Your task to perform on an android device: toggle notifications settings in the gmail app Image 0: 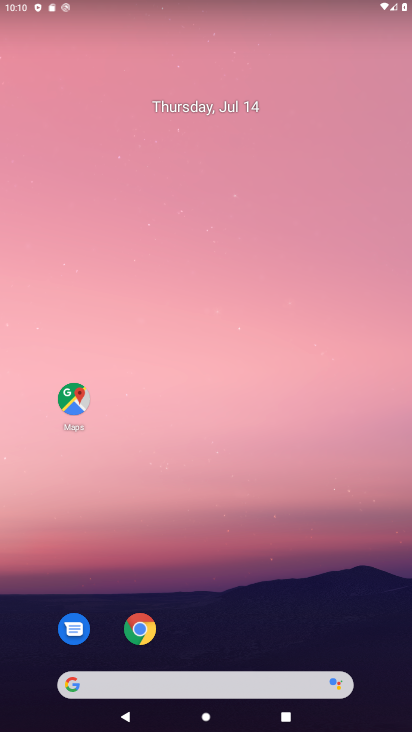
Step 0: drag from (236, 481) to (265, 273)
Your task to perform on an android device: toggle notifications settings in the gmail app Image 1: 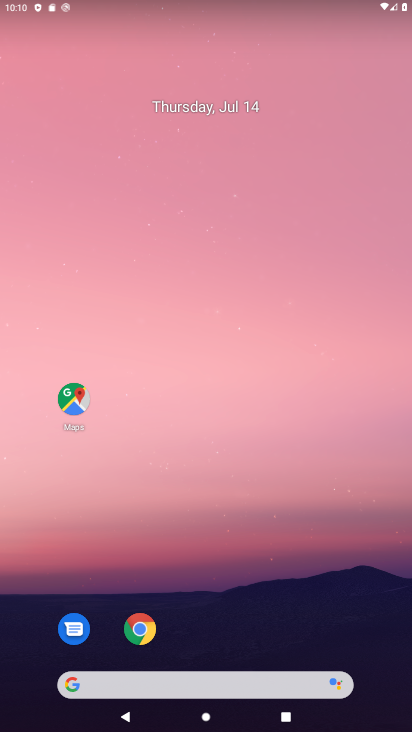
Step 1: drag from (184, 670) to (180, 151)
Your task to perform on an android device: toggle notifications settings in the gmail app Image 2: 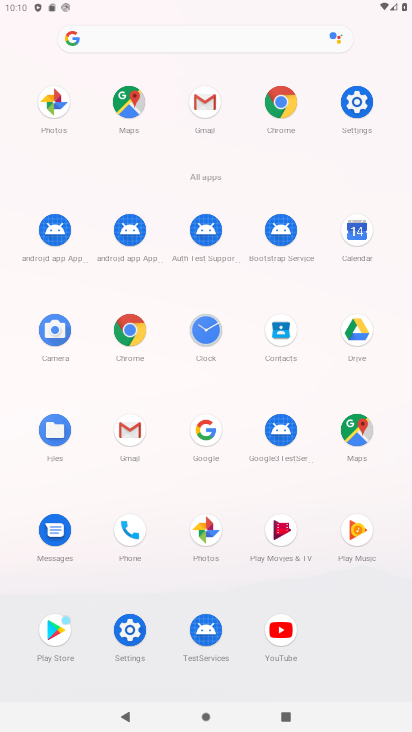
Step 2: click (207, 96)
Your task to perform on an android device: toggle notifications settings in the gmail app Image 3: 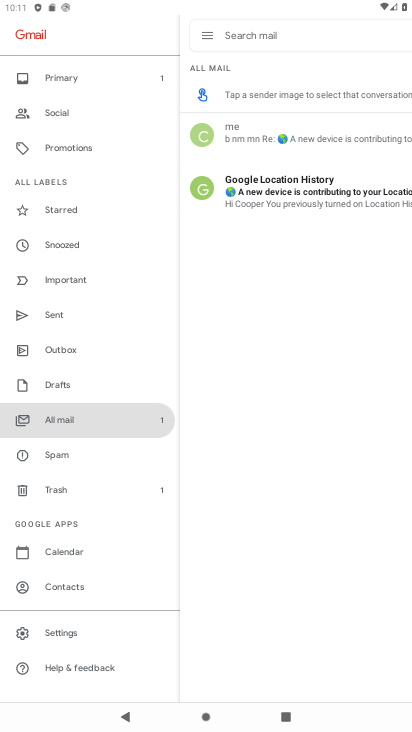
Step 3: click (71, 634)
Your task to perform on an android device: toggle notifications settings in the gmail app Image 4: 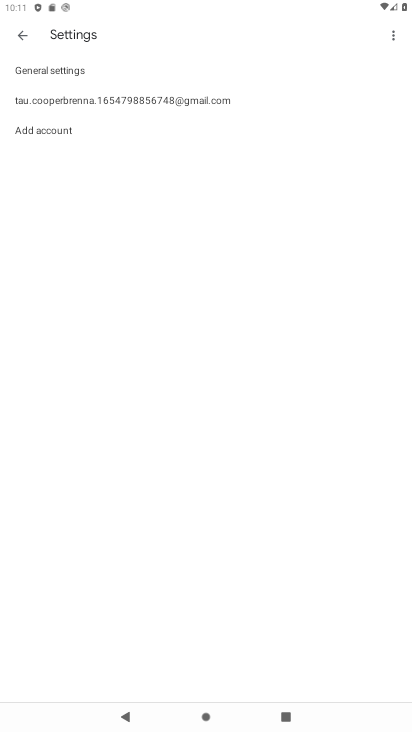
Step 4: click (150, 96)
Your task to perform on an android device: toggle notifications settings in the gmail app Image 5: 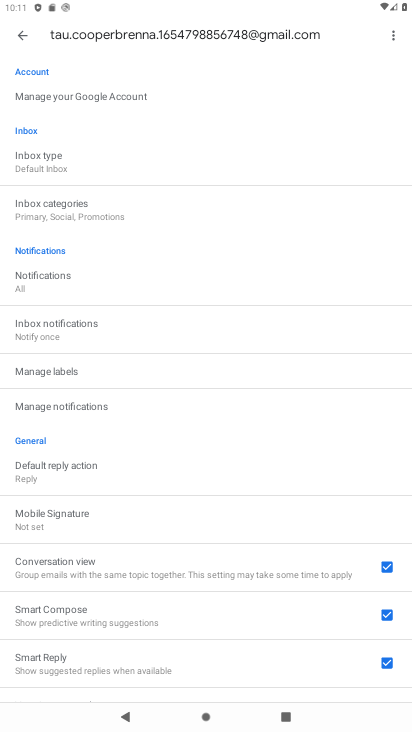
Step 5: click (44, 409)
Your task to perform on an android device: toggle notifications settings in the gmail app Image 6: 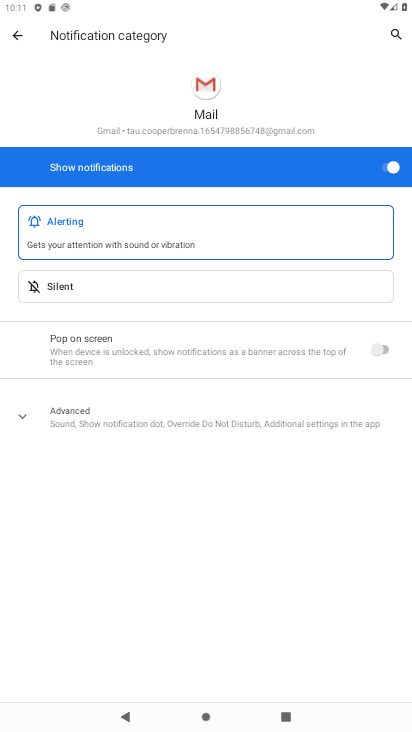
Step 6: click (389, 170)
Your task to perform on an android device: toggle notifications settings in the gmail app Image 7: 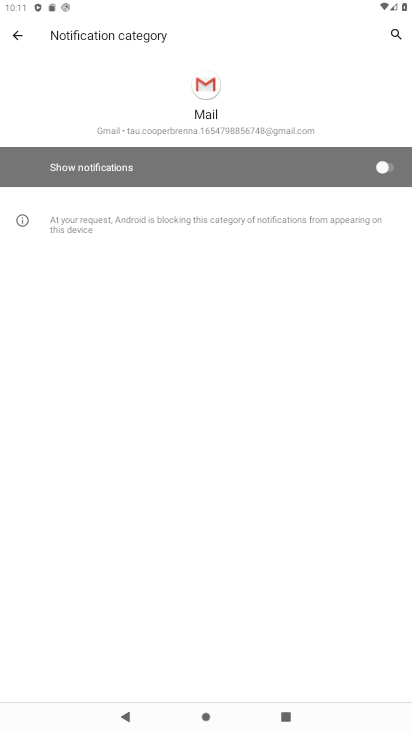
Step 7: task complete